Your task to perform on an android device: Open Chrome and go to the settings page Image 0: 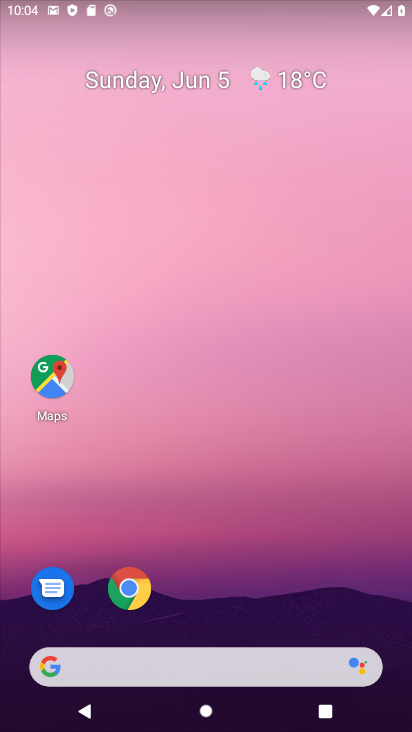
Step 0: drag from (314, 541) to (289, 97)
Your task to perform on an android device: Open Chrome and go to the settings page Image 1: 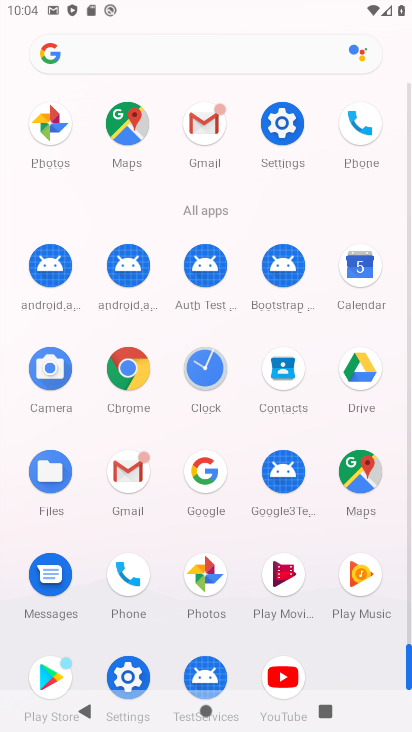
Step 1: click (127, 675)
Your task to perform on an android device: Open Chrome and go to the settings page Image 2: 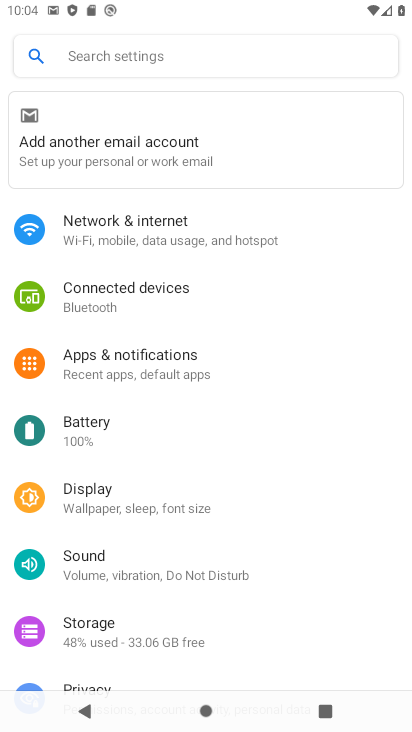
Step 2: drag from (197, 665) to (270, 387)
Your task to perform on an android device: Open Chrome and go to the settings page Image 3: 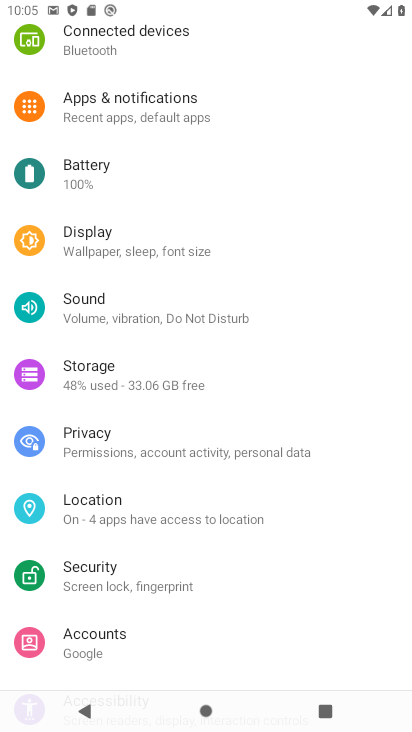
Step 3: press home button
Your task to perform on an android device: Open Chrome and go to the settings page Image 4: 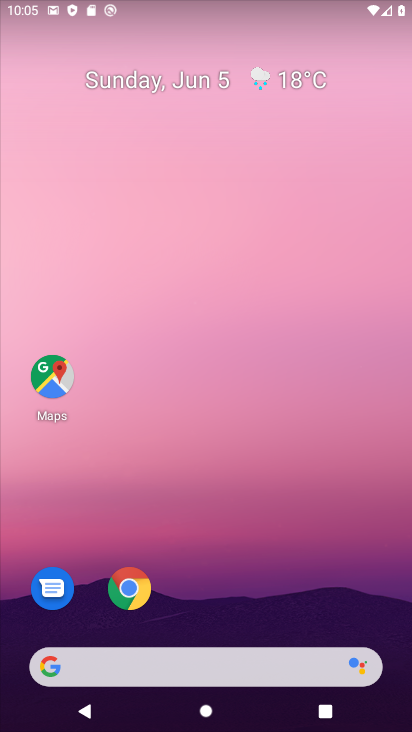
Step 4: drag from (325, 573) to (320, 99)
Your task to perform on an android device: Open Chrome and go to the settings page Image 5: 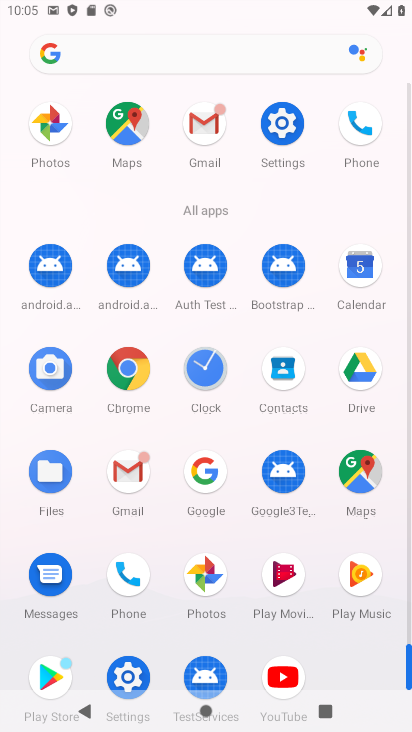
Step 5: click (125, 373)
Your task to perform on an android device: Open Chrome and go to the settings page Image 6: 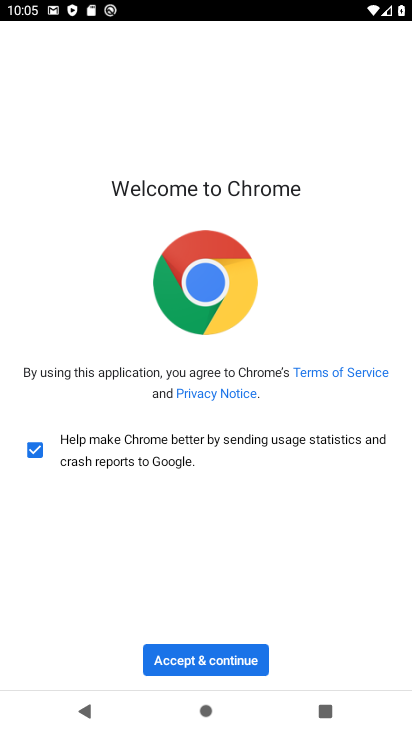
Step 6: click (208, 662)
Your task to perform on an android device: Open Chrome and go to the settings page Image 7: 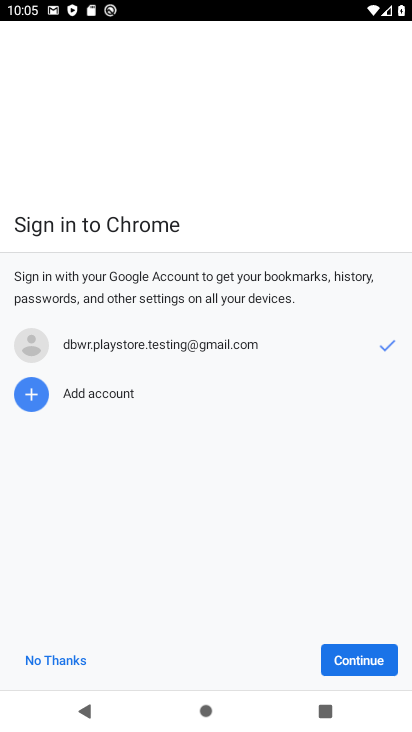
Step 7: click (363, 657)
Your task to perform on an android device: Open Chrome and go to the settings page Image 8: 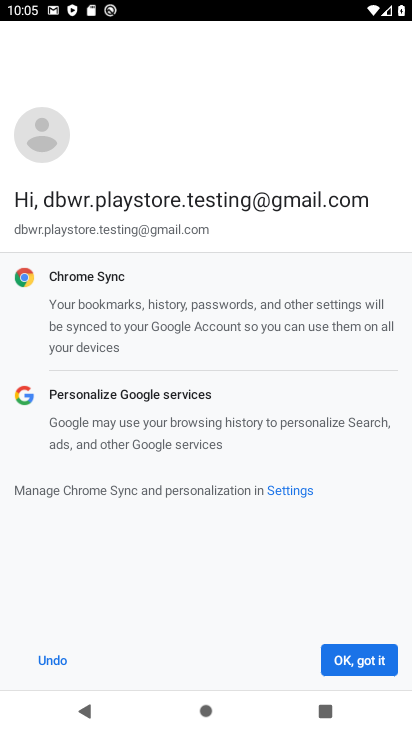
Step 8: click (366, 665)
Your task to perform on an android device: Open Chrome and go to the settings page Image 9: 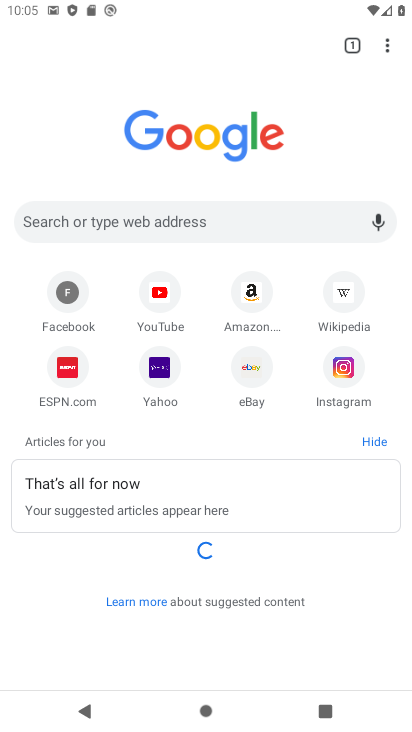
Step 9: task complete